Your task to perform on an android device: Open maps Image 0: 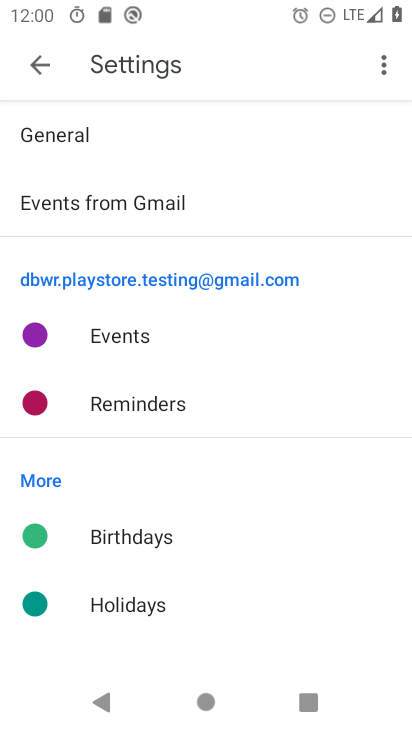
Step 0: press home button
Your task to perform on an android device: Open maps Image 1: 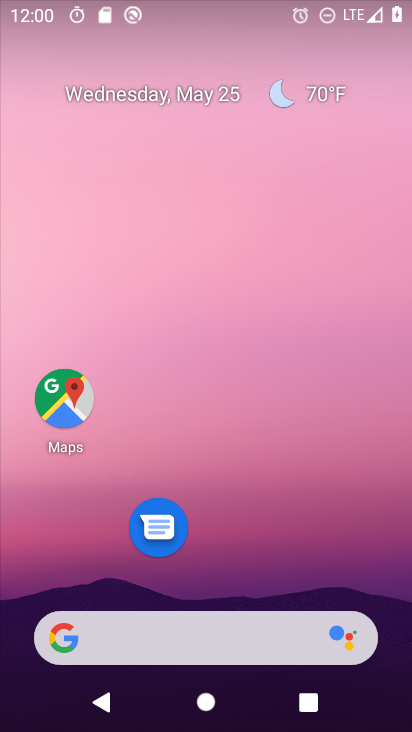
Step 1: click (69, 401)
Your task to perform on an android device: Open maps Image 2: 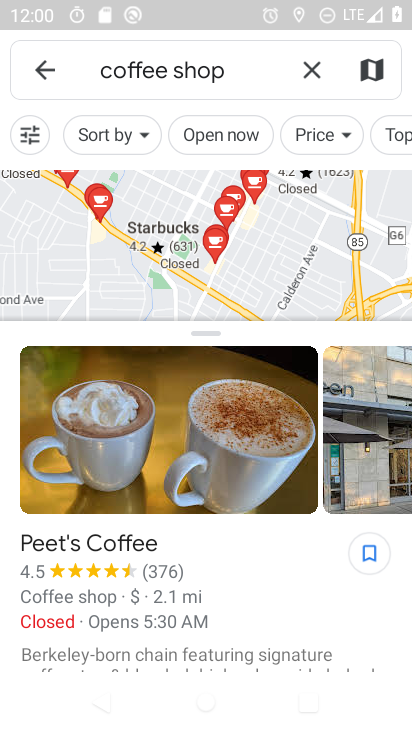
Step 2: task complete